Your task to perform on an android device: check google app version Image 0: 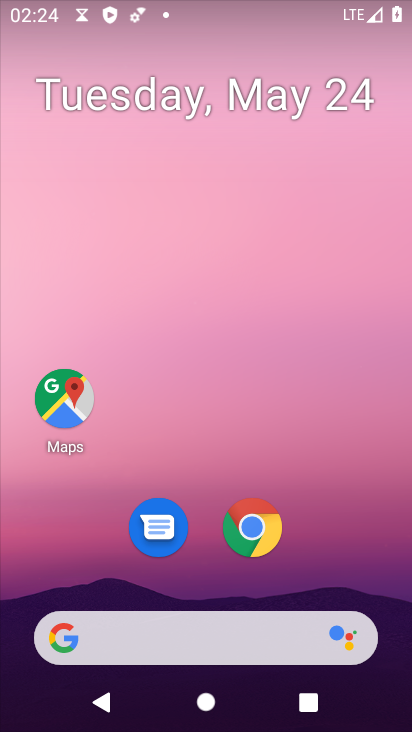
Step 0: drag from (209, 625) to (334, 89)
Your task to perform on an android device: check google app version Image 1: 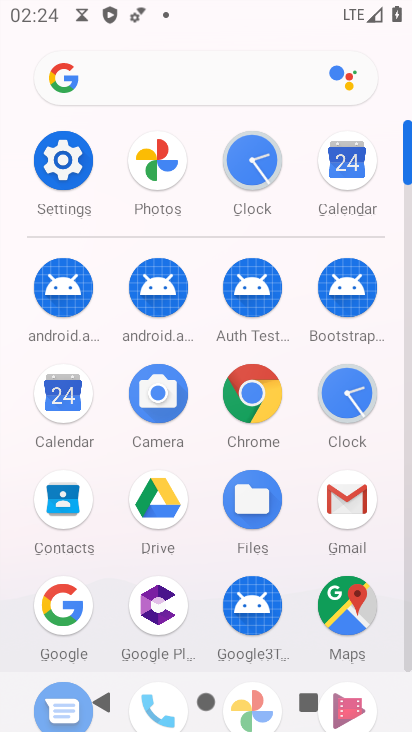
Step 1: click (79, 608)
Your task to perform on an android device: check google app version Image 2: 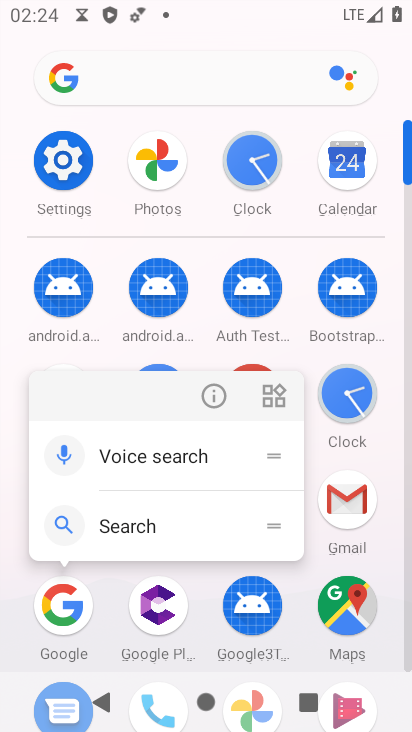
Step 2: click (214, 399)
Your task to perform on an android device: check google app version Image 3: 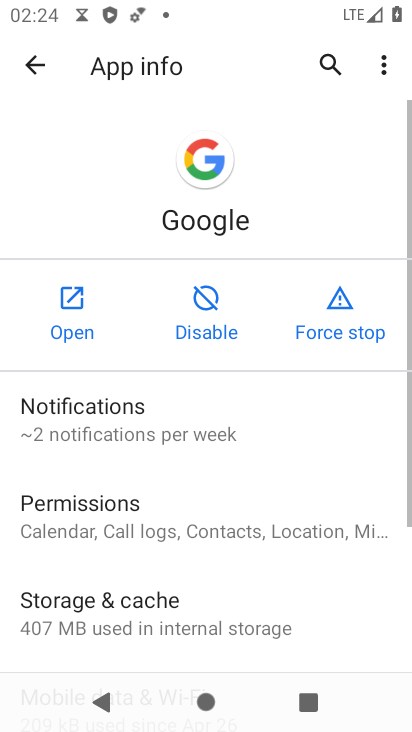
Step 3: drag from (179, 620) to (240, 1)
Your task to perform on an android device: check google app version Image 4: 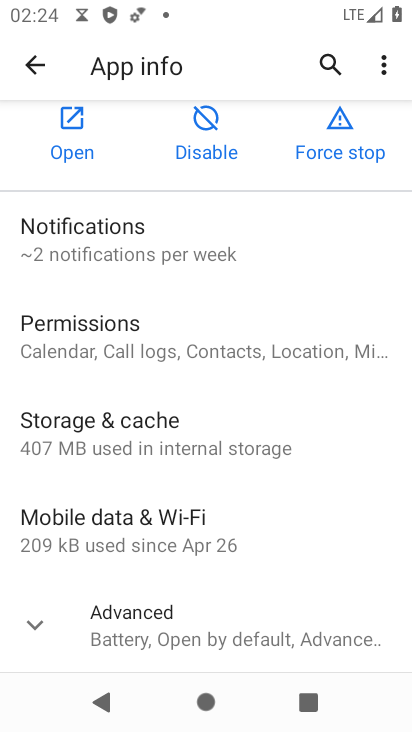
Step 4: drag from (178, 645) to (235, 244)
Your task to perform on an android device: check google app version Image 5: 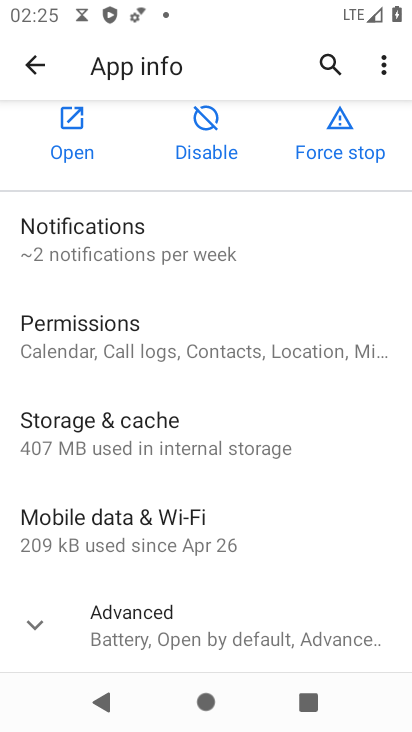
Step 5: click (150, 624)
Your task to perform on an android device: check google app version Image 6: 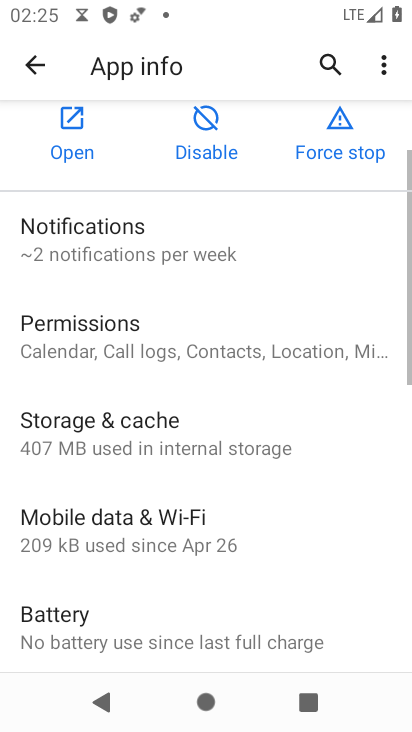
Step 6: task complete